Your task to perform on an android device: Add bose soundsport free to the cart on newegg Image 0: 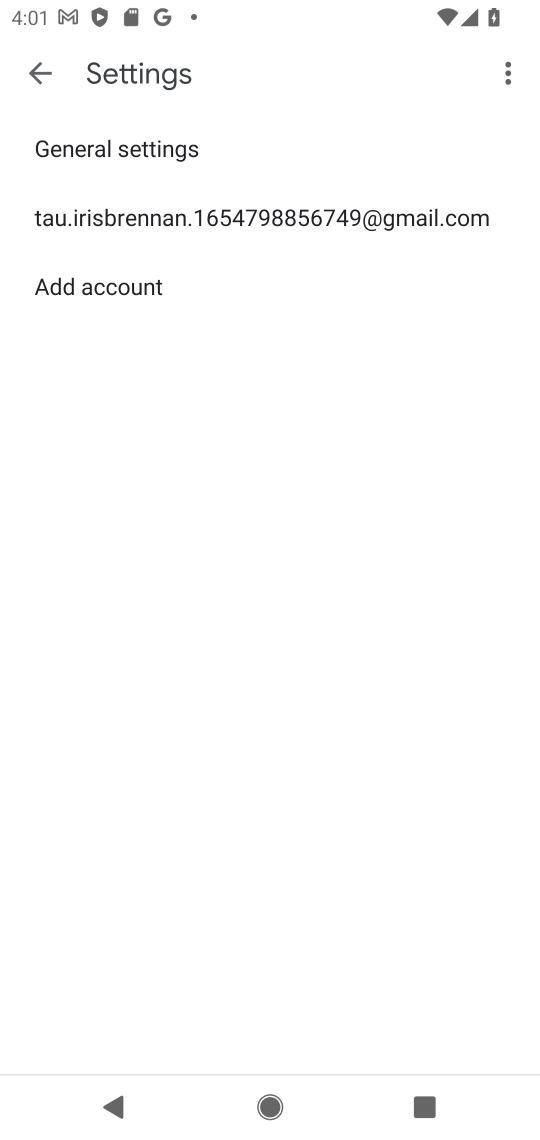
Step 0: press home button
Your task to perform on an android device: Add bose soundsport free to the cart on newegg Image 1: 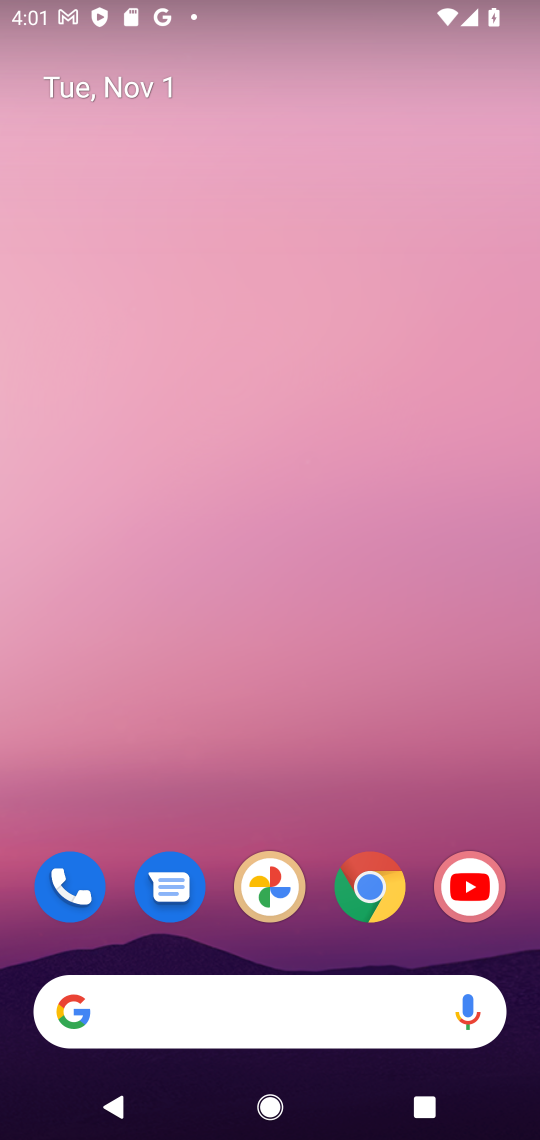
Step 1: drag from (317, 948) to (346, 32)
Your task to perform on an android device: Add bose soundsport free to the cart on newegg Image 2: 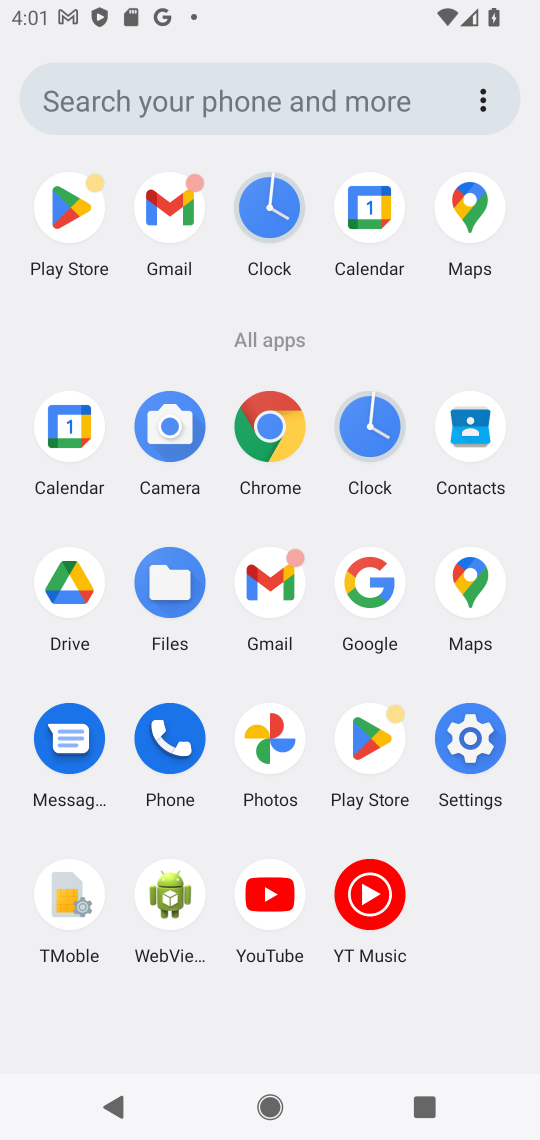
Step 2: click (278, 436)
Your task to perform on an android device: Add bose soundsport free to the cart on newegg Image 3: 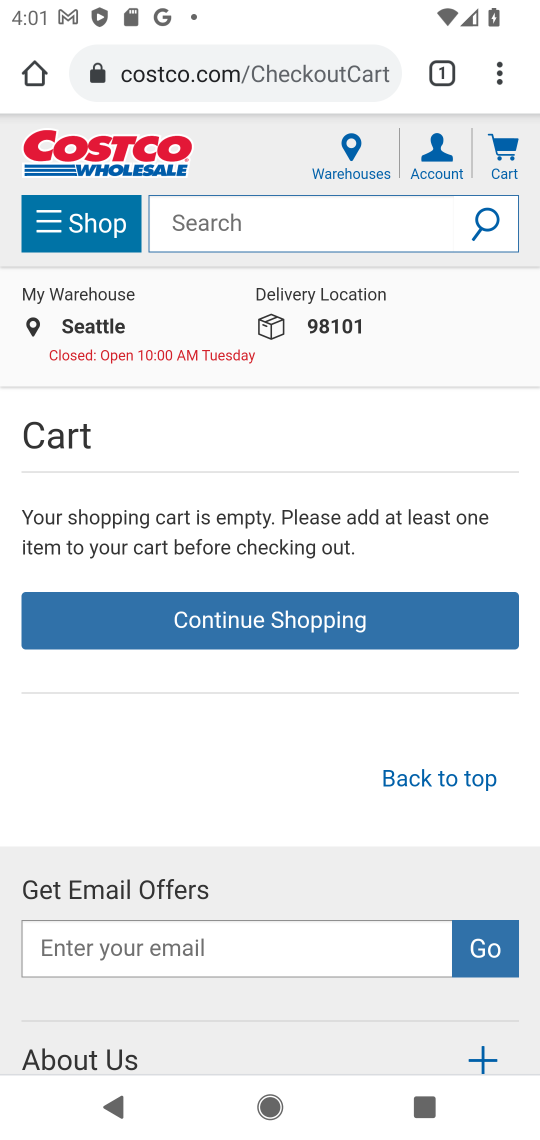
Step 3: click (314, 74)
Your task to perform on an android device: Add bose soundsport free to the cart on newegg Image 4: 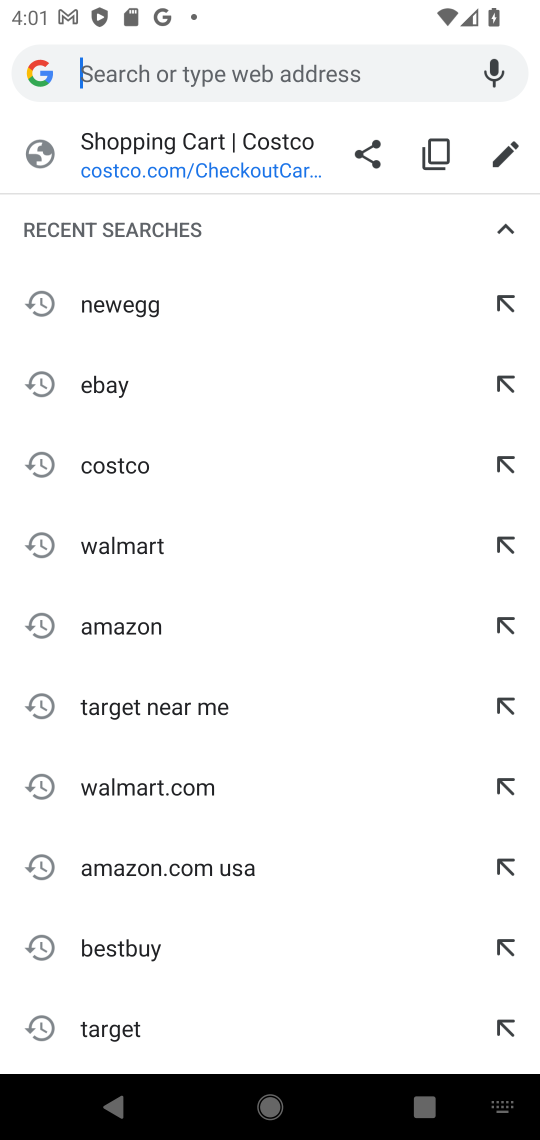
Step 4: type "newegg.com"
Your task to perform on an android device: Add bose soundsport free to the cart on newegg Image 5: 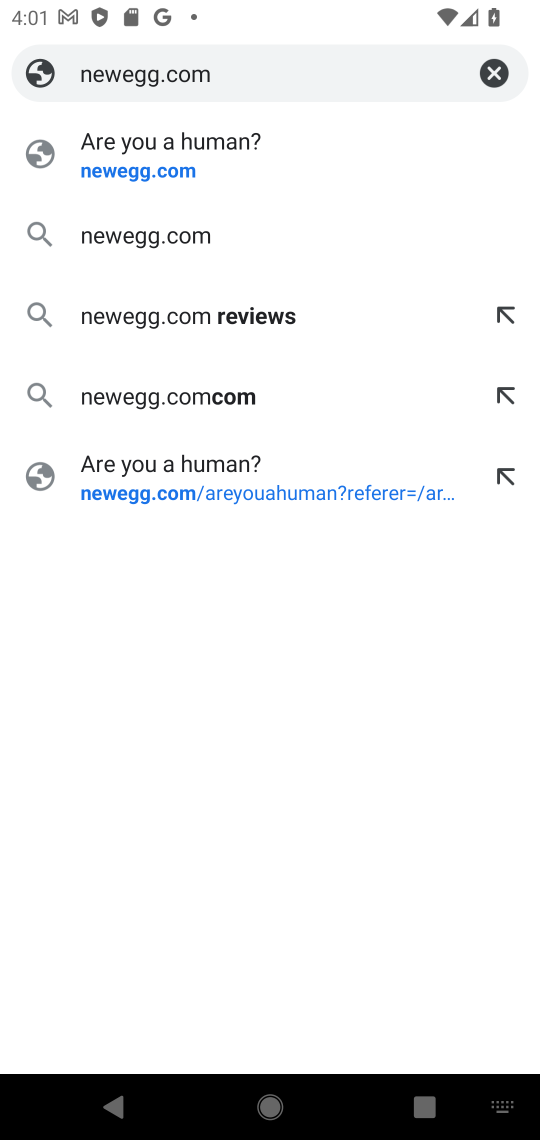
Step 5: press enter
Your task to perform on an android device: Add bose soundsport free to the cart on newegg Image 6: 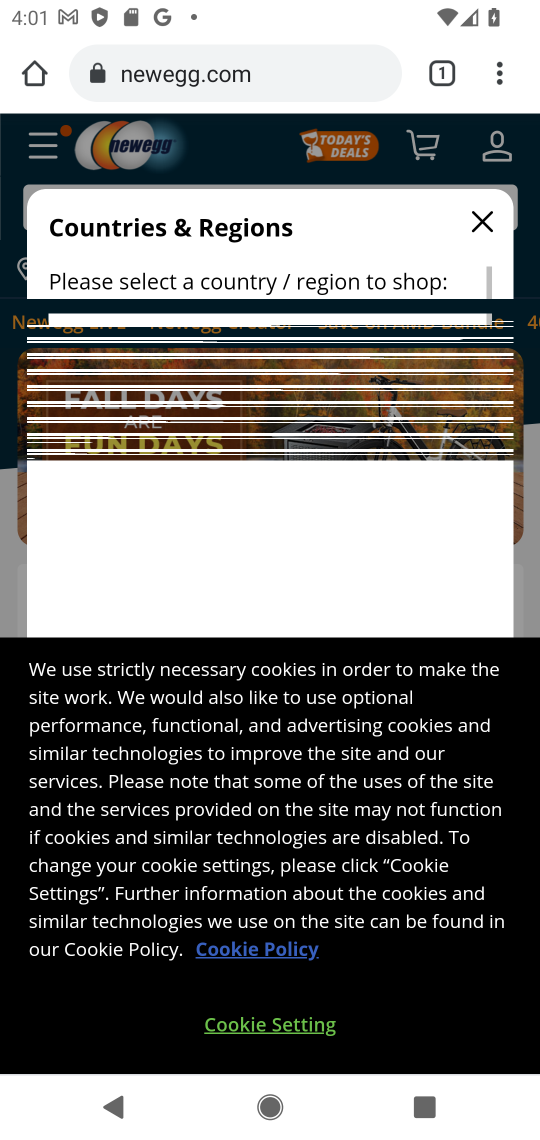
Step 6: click (498, 218)
Your task to perform on an android device: Add bose soundsport free to the cart on newegg Image 7: 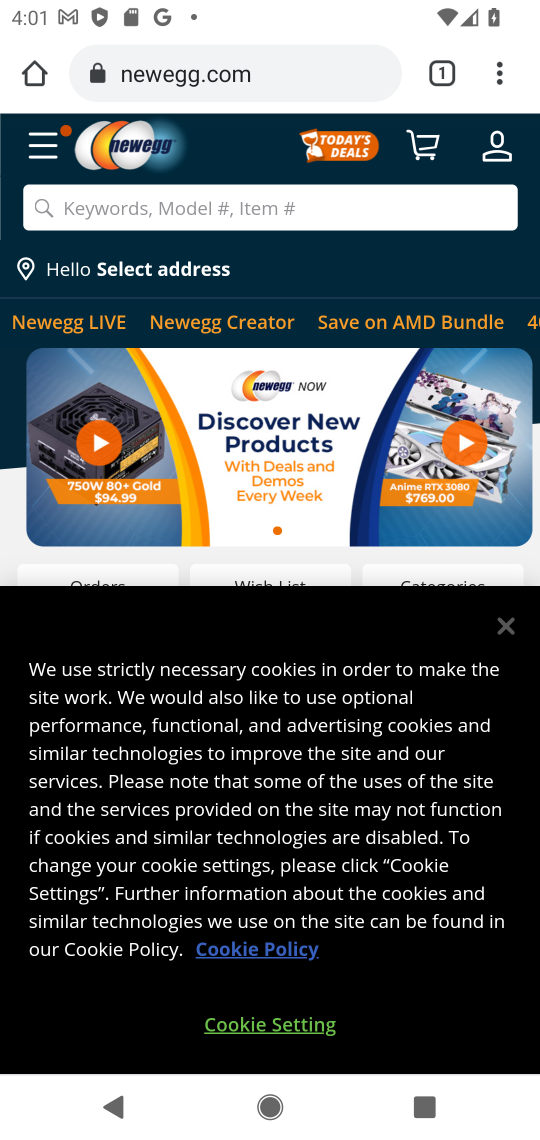
Step 7: click (360, 202)
Your task to perform on an android device: Add bose soundsport free to the cart on newegg Image 8: 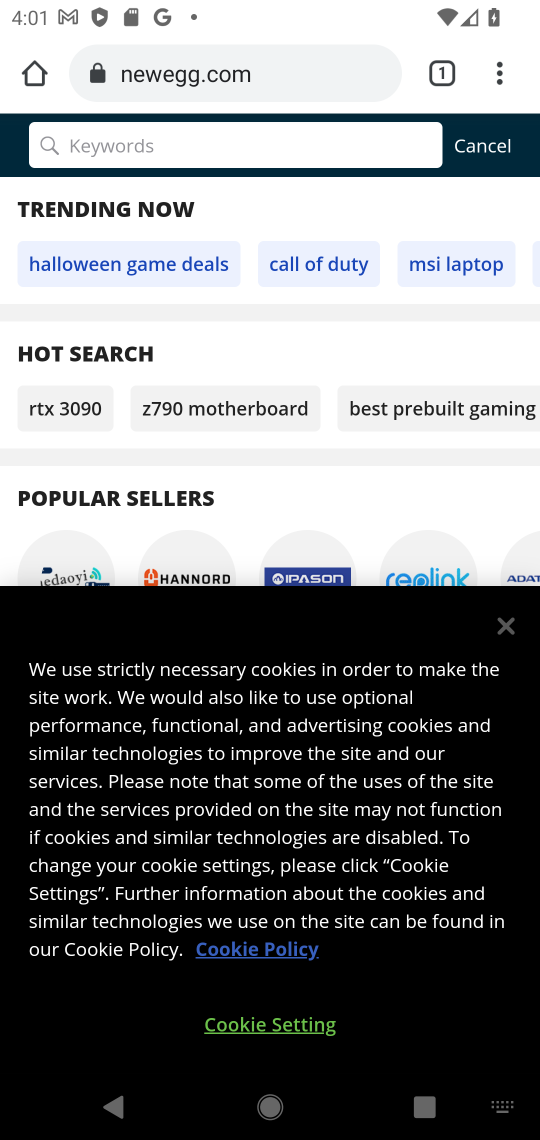
Step 8: type "bose soundsport free"
Your task to perform on an android device: Add bose soundsport free to the cart on newegg Image 9: 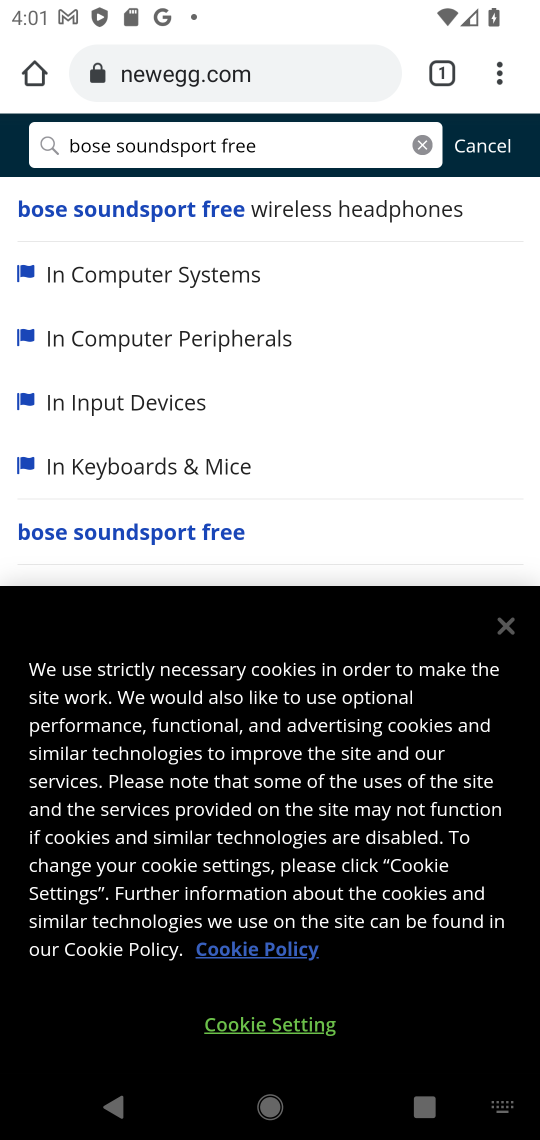
Step 9: press enter
Your task to perform on an android device: Add bose soundsport free to the cart on newegg Image 10: 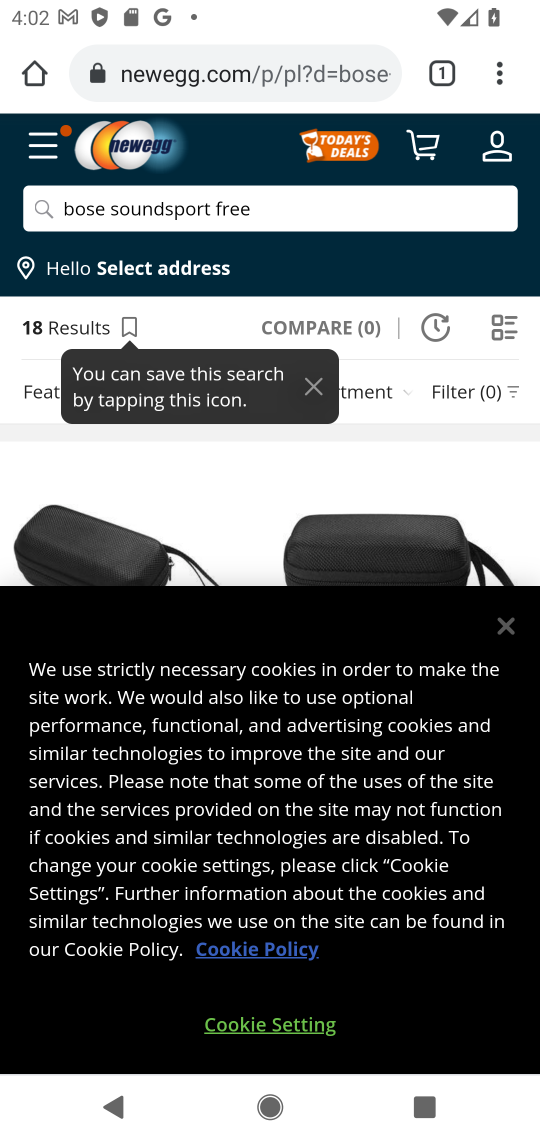
Step 10: click (511, 619)
Your task to perform on an android device: Add bose soundsport free to the cart on newegg Image 11: 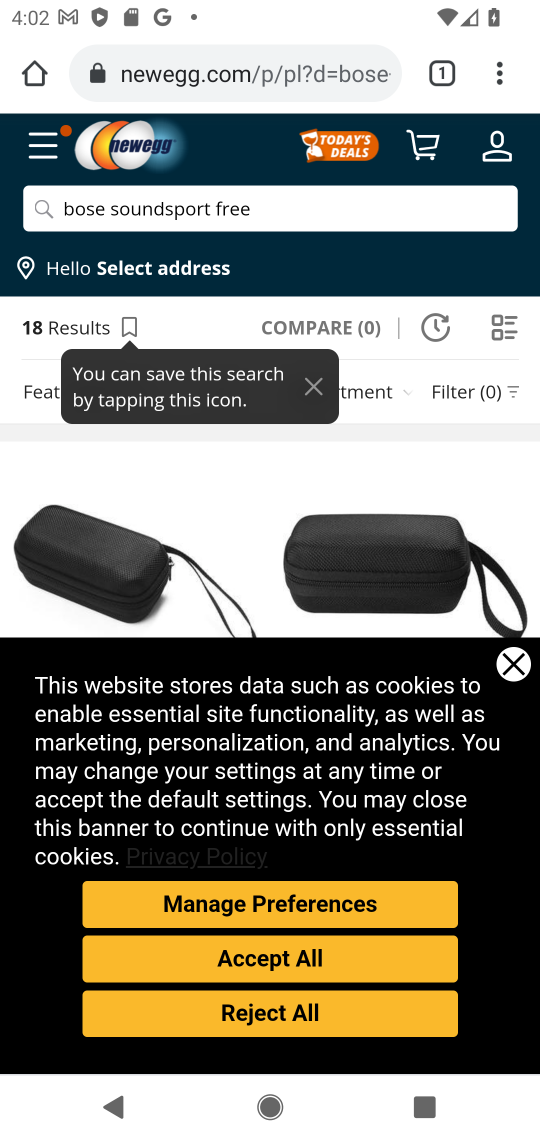
Step 11: click (510, 656)
Your task to perform on an android device: Add bose soundsport free to the cart on newegg Image 12: 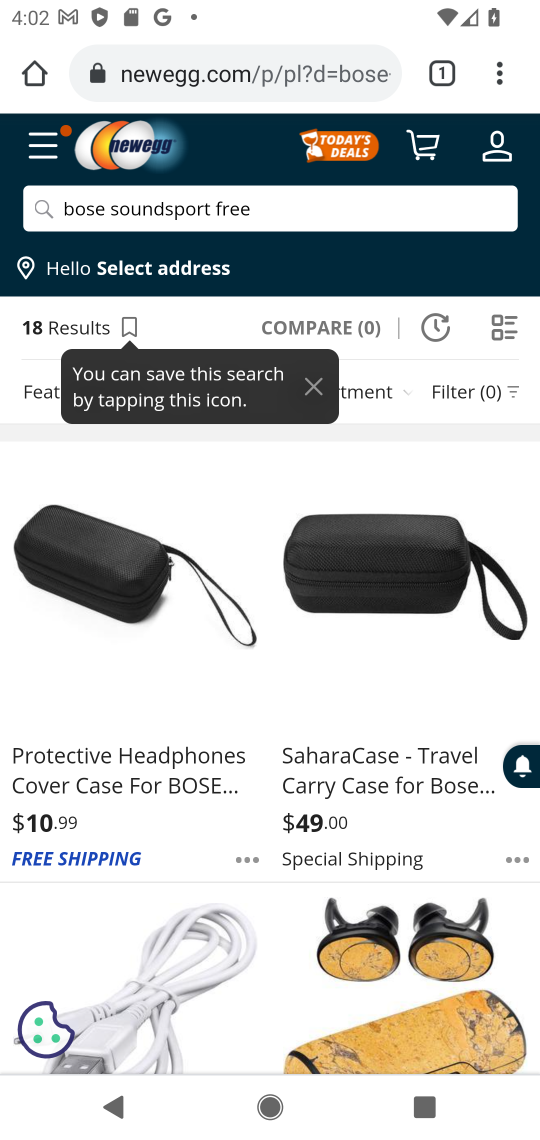
Step 12: task complete